Your task to perform on an android device: Open Chrome and go to settings Image 0: 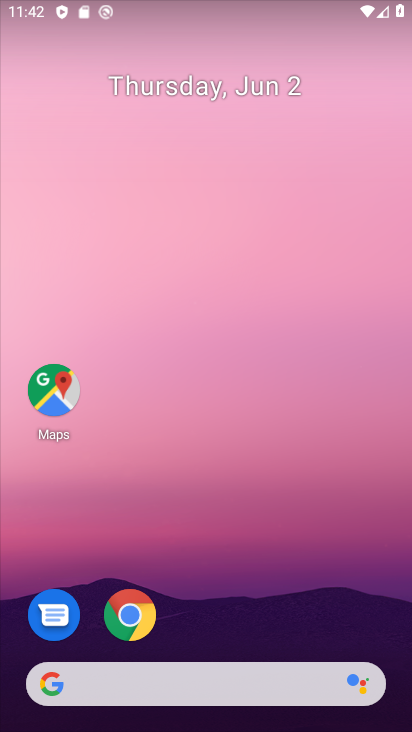
Step 0: click (144, 613)
Your task to perform on an android device: Open Chrome and go to settings Image 1: 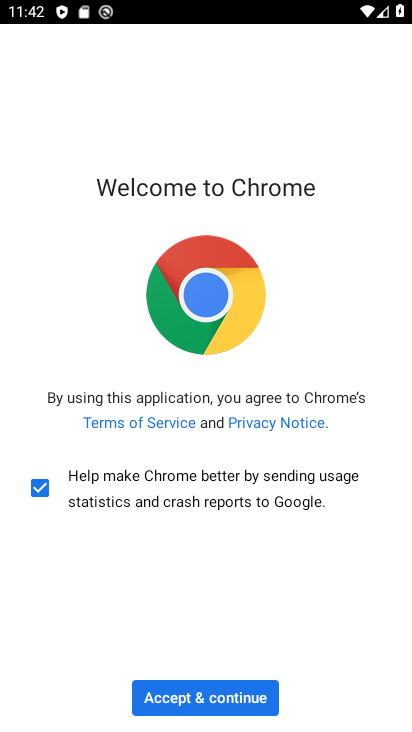
Step 1: click (198, 714)
Your task to perform on an android device: Open Chrome and go to settings Image 2: 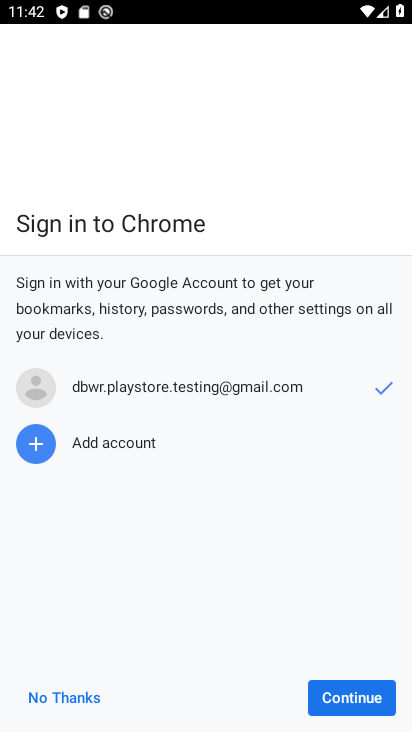
Step 2: click (352, 691)
Your task to perform on an android device: Open Chrome and go to settings Image 3: 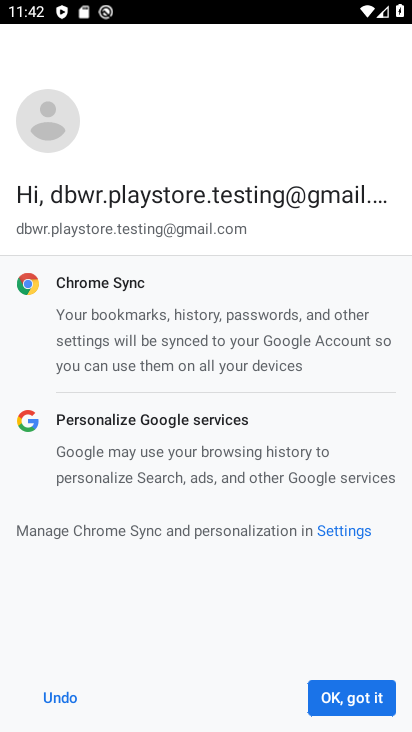
Step 3: click (359, 699)
Your task to perform on an android device: Open Chrome and go to settings Image 4: 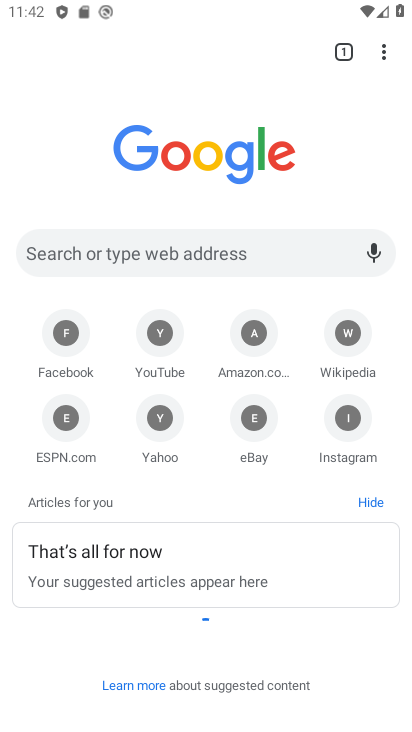
Step 4: click (379, 40)
Your task to perform on an android device: Open Chrome and go to settings Image 5: 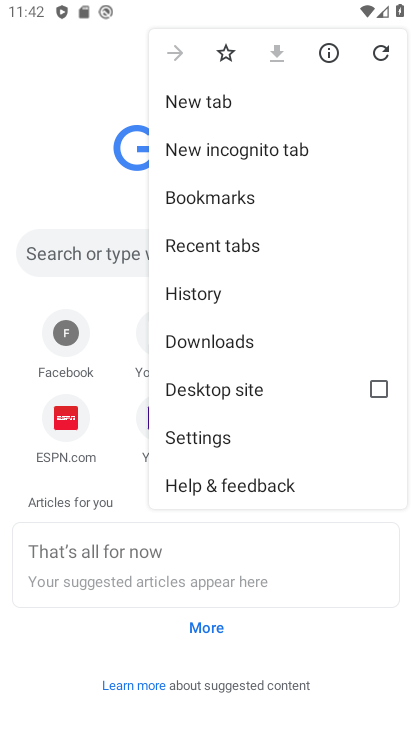
Step 5: click (264, 438)
Your task to perform on an android device: Open Chrome and go to settings Image 6: 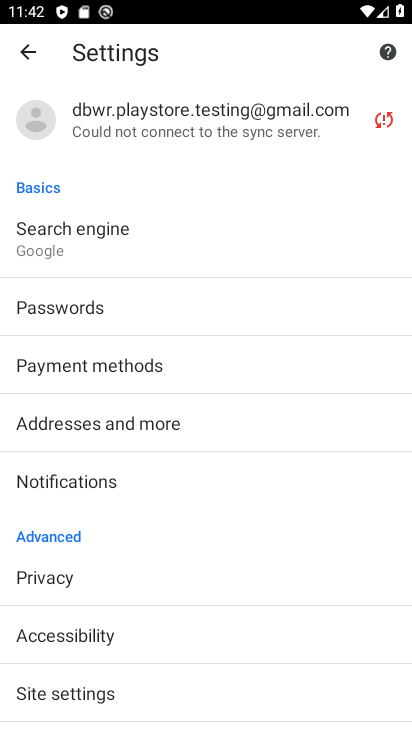
Step 6: task complete